Your task to perform on an android device: open sync settings in chrome Image 0: 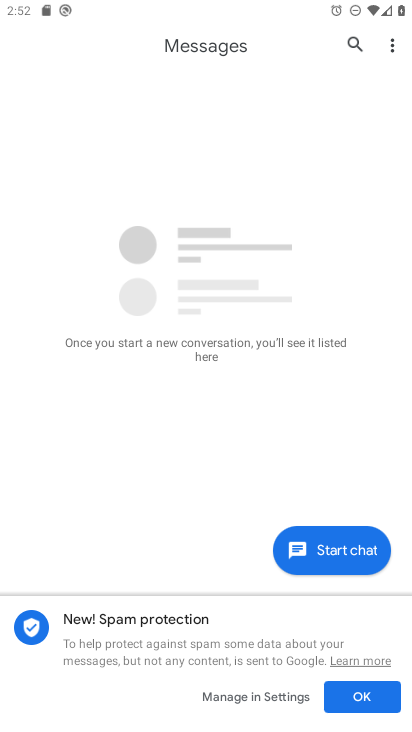
Step 0: press home button
Your task to perform on an android device: open sync settings in chrome Image 1: 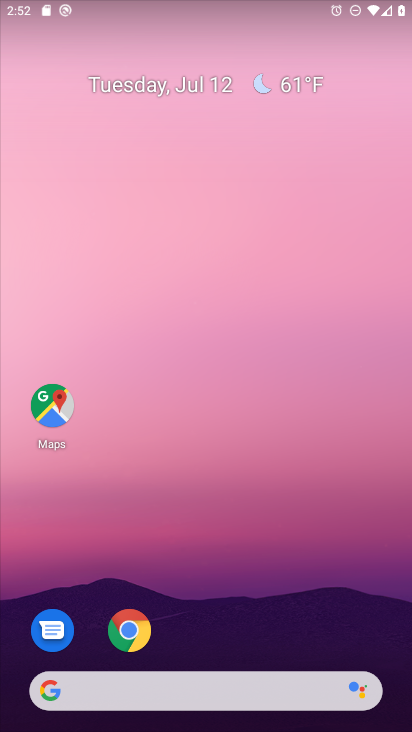
Step 1: click (160, 627)
Your task to perform on an android device: open sync settings in chrome Image 2: 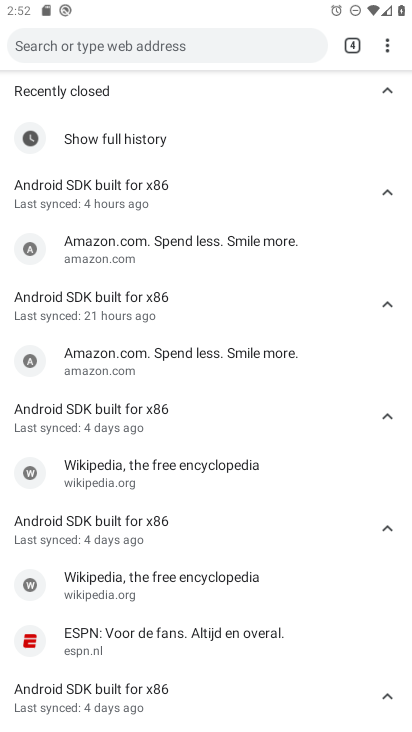
Step 2: click (374, 56)
Your task to perform on an android device: open sync settings in chrome Image 3: 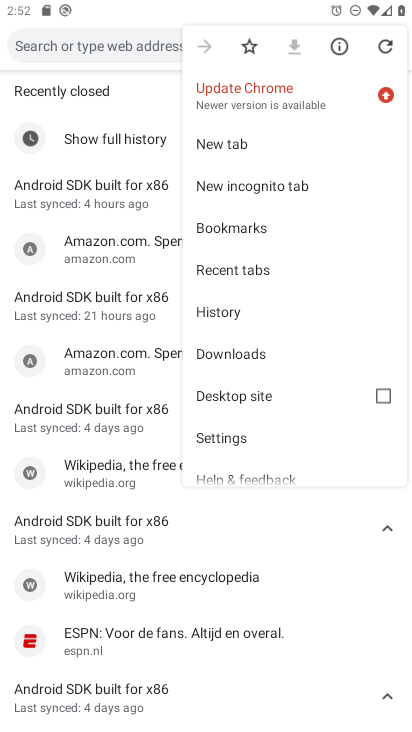
Step 3: drag from (279, 331) to (261, 250)
Your task to perform on an android device: open sync settings in chrome Image 4: 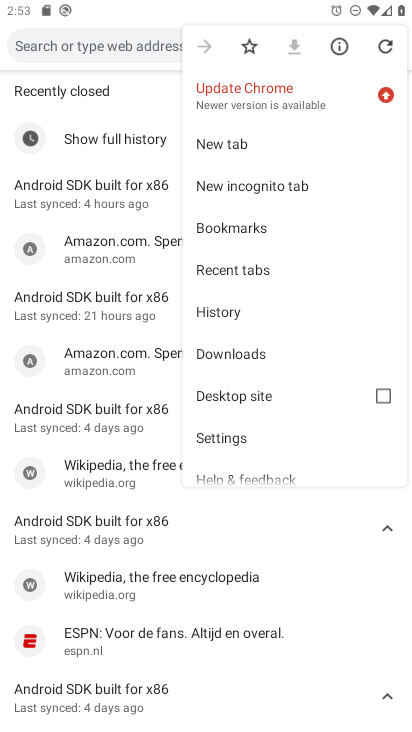
Step 4: click (236, 432)
Your task to perform on an android device: open sync settings in chrome Image 5: 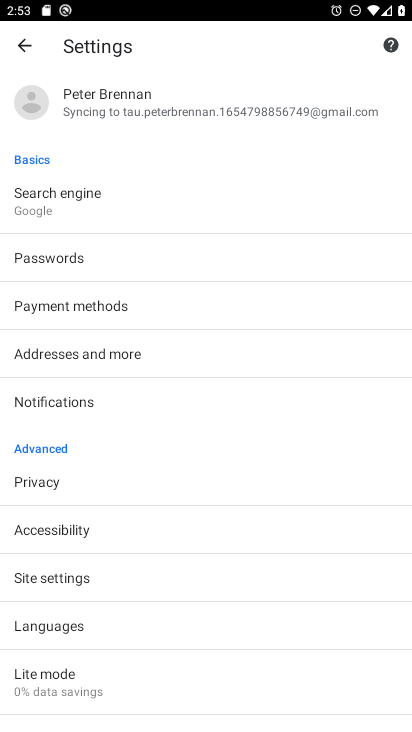
Step 5: click (102, 106)
Your task to perform on an android device: open sync settings in chrome Image 6: 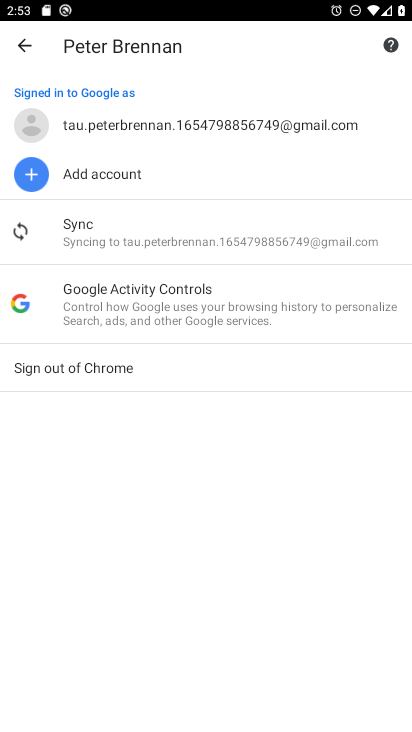
Step 6: click (94, 210)
Your task to perform on an android device: open sync settings in chrome Image 7: 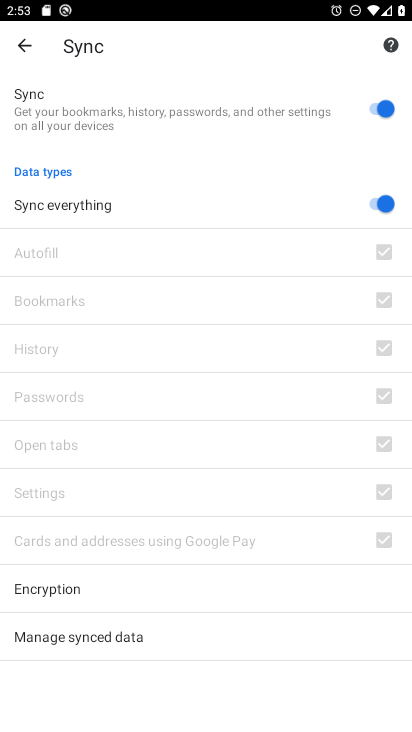
Step 7: task complete